Your task to perform on an android device: Open calendar and show me the fourth week of next month Image 0: 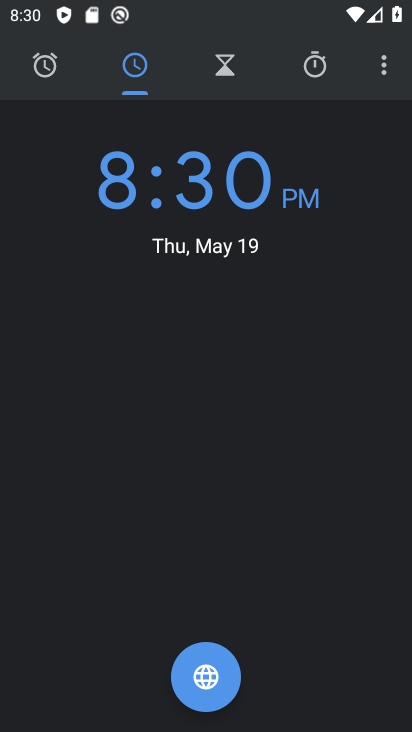
Step 0: press home button
Your task to perform on an android device: Open calendar and show me the fourth week of next month Image 1: 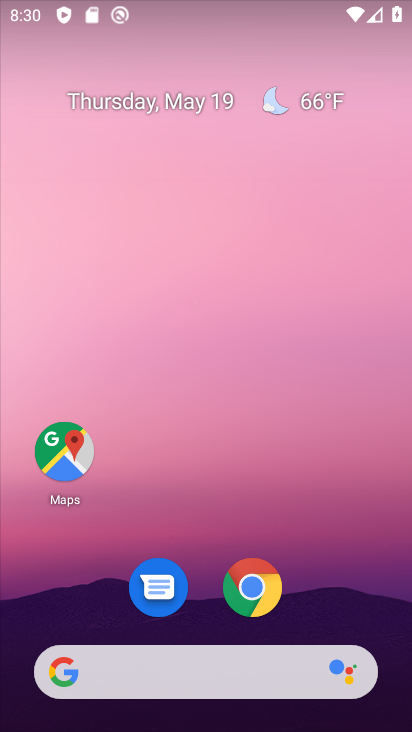
Step 1: drag from (243, 714) to (256, 192)
Your task to perform on an android device: Open calendar and show me the fourth week of next month Image 2: 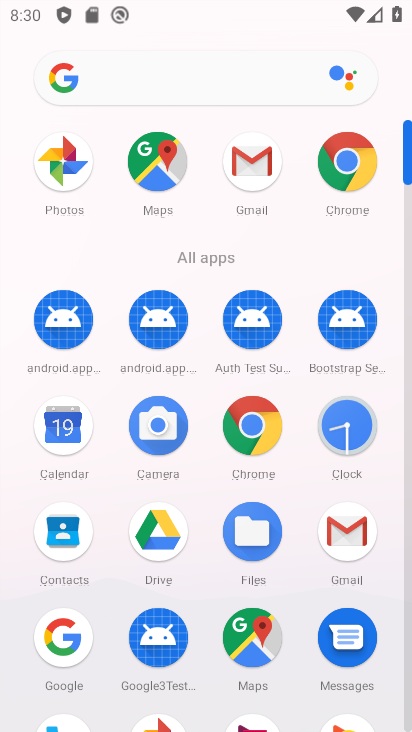
Step 2: click (48, 430)
Your task to perform on an android device: Open calendar and show me the fourth week of next month Image 3: 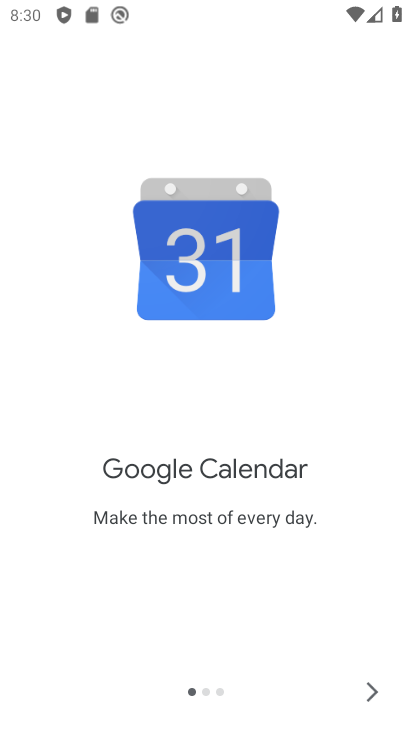
Step 3: click (363, 682)
Your task to perform on an android device: Open calendar and show me the fourth week of next month Image 4: 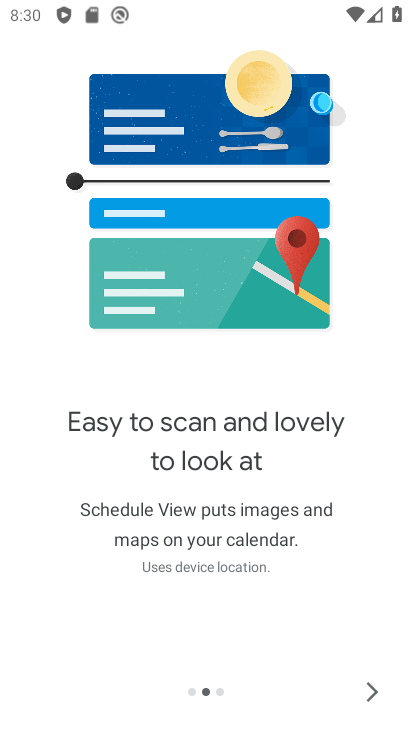
Step 4: click (363, 685)
Your task to perform on an android device: Open calendar and show me the fourth week of next month Image 5: 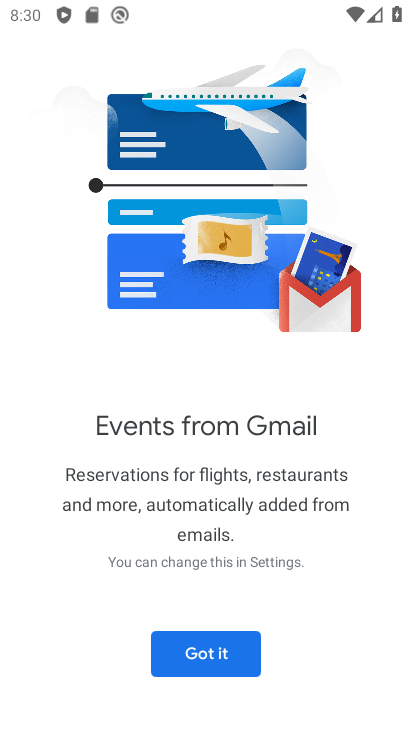
Step 5: click (251, 653)
Your task to perform on an android device: Open calendar and show me the fourth week of next month Image 6: 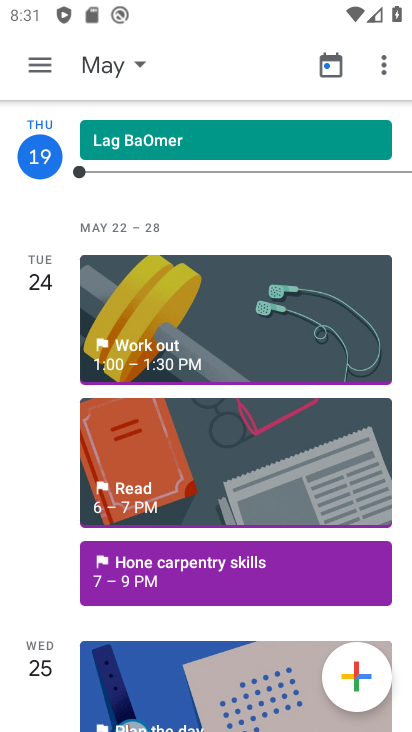
Step 6: click (51, 59)
Your task to perform on an android device: Open calendar and show me the fourth week of next month Image 7: 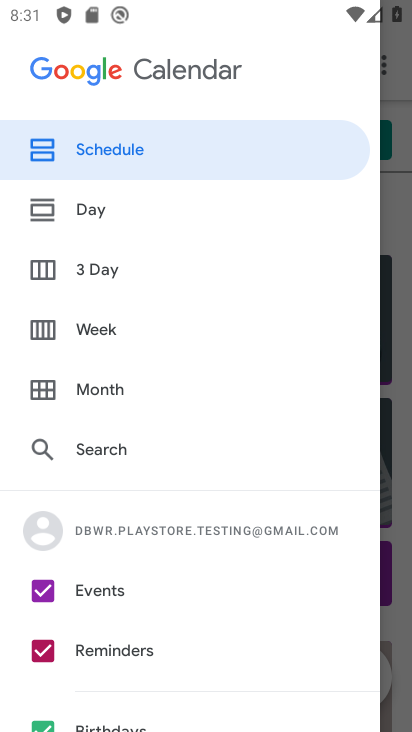
Step 7: click (143, 391)
Your task to perform on an android device: Open calendar and show me the fourth week of next month Image 8: 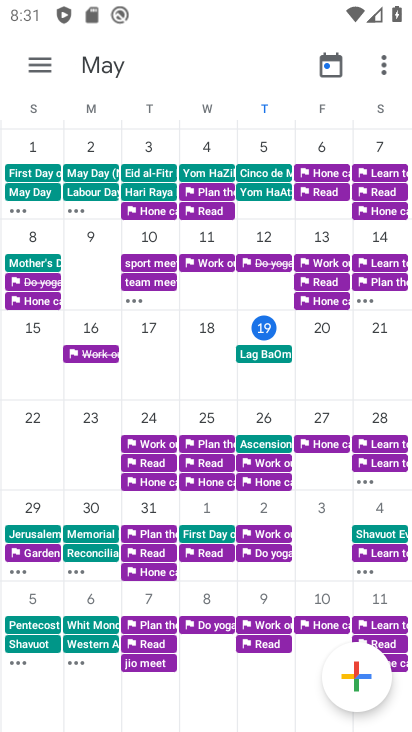
Step 8: drag from (381, 451) to (14, 413)
Your task to perform on an android device: Open calendar and show me the fourth week of next month Image 9: 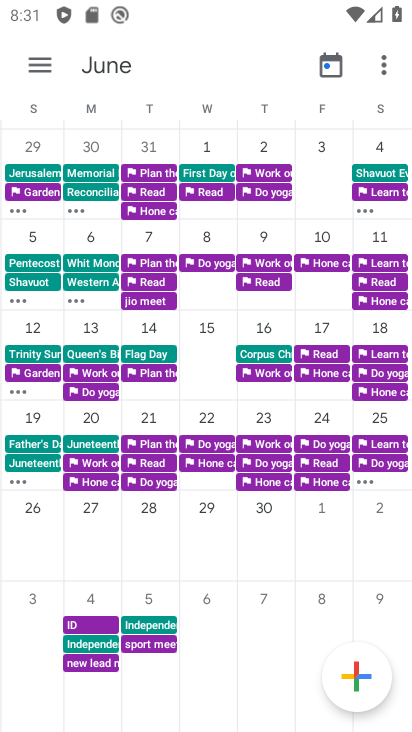
Step 9: click (95, 460)
Your task to perform on an android device: Open calendar and show me the fourth week of next month Image 10: 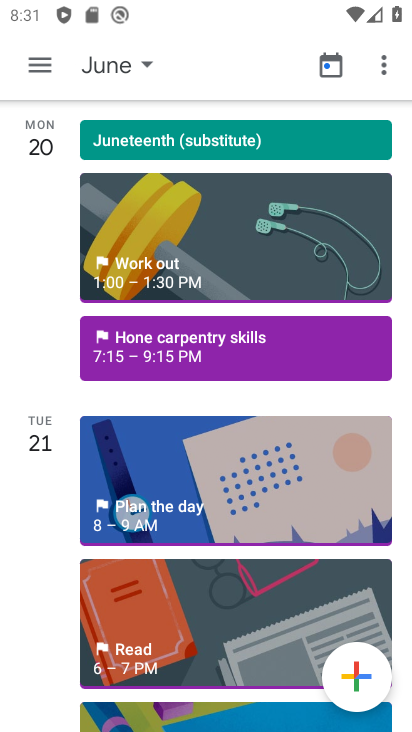
Step 10: task complete